Your task to perform on an android device: Open privacy settings Image 0: 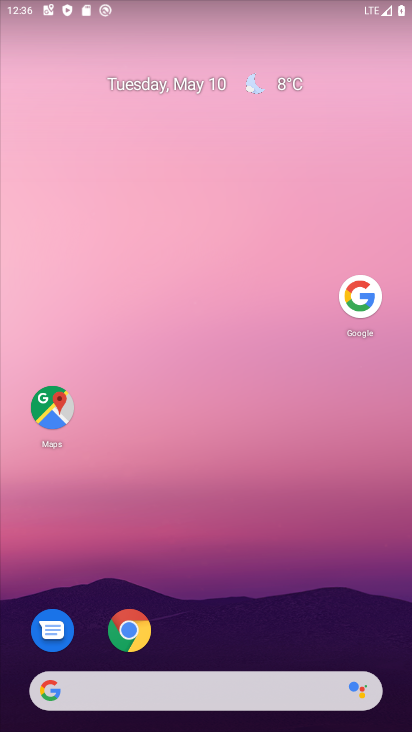
Step 0: press home button
Your task to perform on an android device: Open privacy settings Image 1: 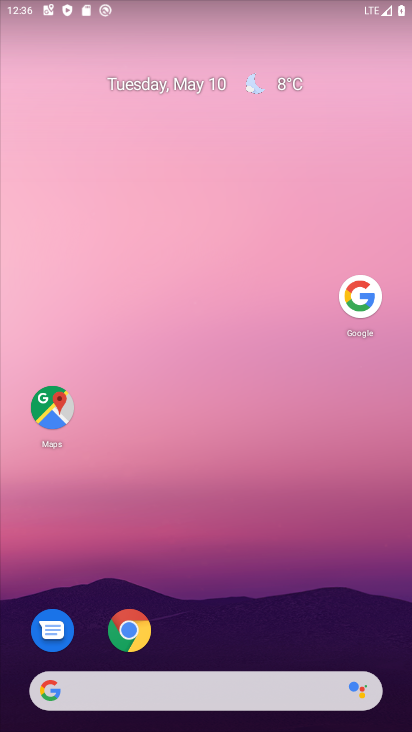
Step 1: drag from (156, 690) to (317, 112)
Your task to perform on an android device: Open privacy settings Image 2: 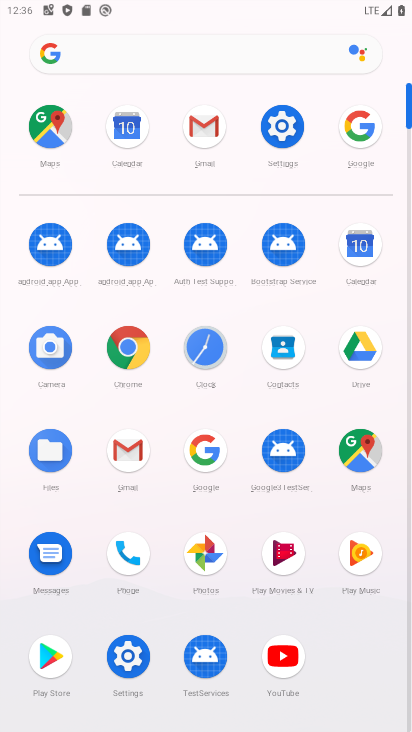
Step 2: click (291, 120)
Your task to perform on an android device: Open privacy settings Image 3: 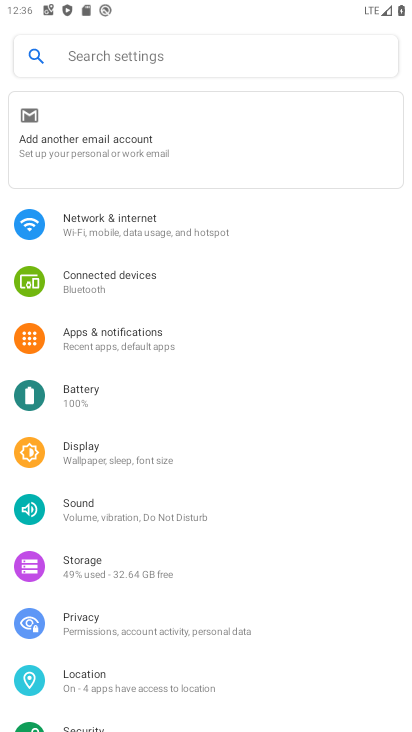
Step 3: click (101, 618)
Your task to perform on an android device: Open privacy settings Image 4: 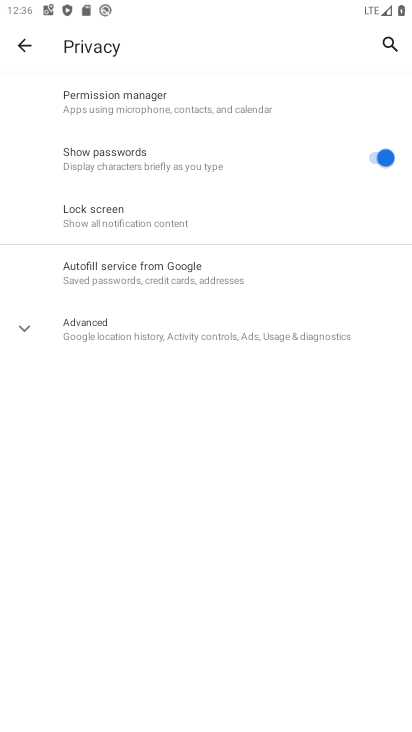
Step 4: task complete